Your task to perform on an android device: Go to network settings Image 0: 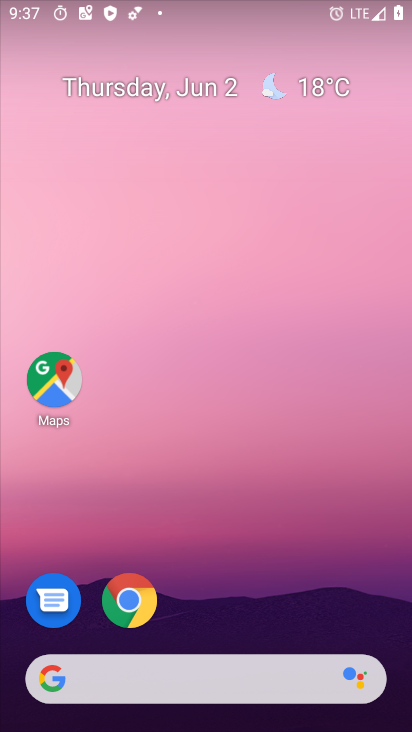
Step 0: drag from (320, 598) to (312, 122)
Your task to perform on an android device: Go to network settings Image 1: 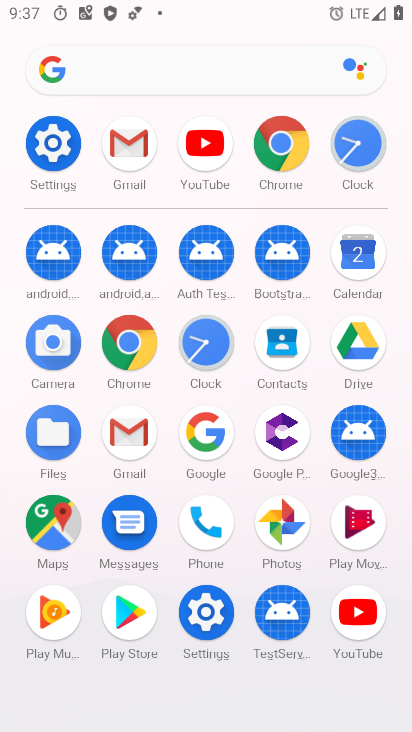
Step 1: click (213, 609)
Your task to perform on an android device: Go to network settings Image 2: 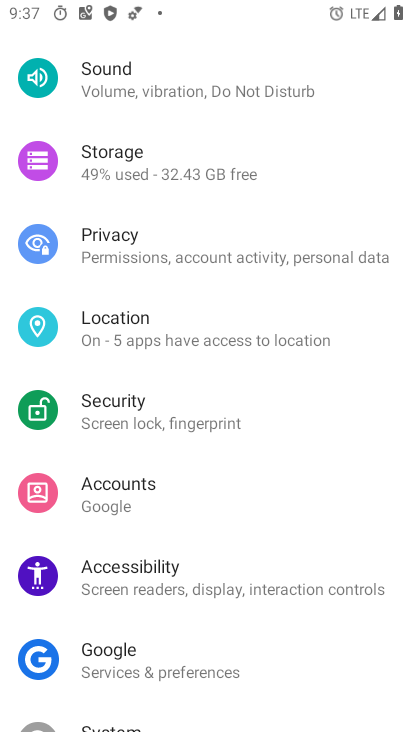
Step 2: drag from (318, 298) to (321, 402)
Your task to perform on an android device: Go to network settings Image 3: 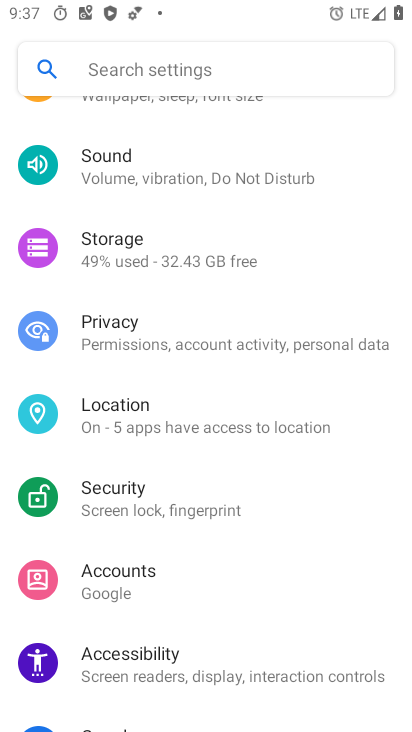
Step 3: drag from (315, 259) to (322, 342)
Your task to perform on an android device: Go to network settings Image 4: 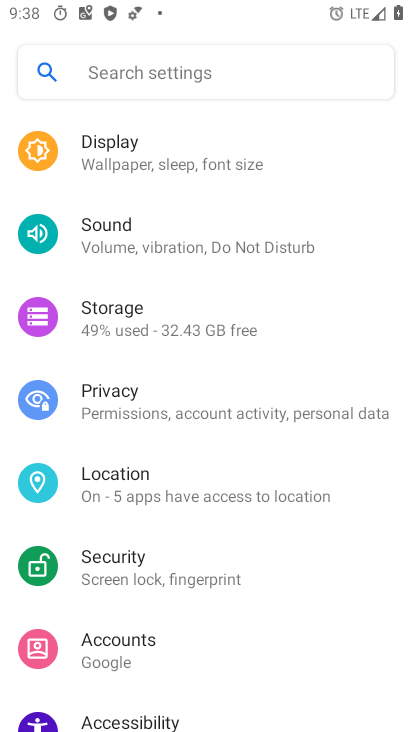
Step 4: drag from (353, 272) to (349, 368)
Your task to perform on an android device: Go to network settings Image 5: 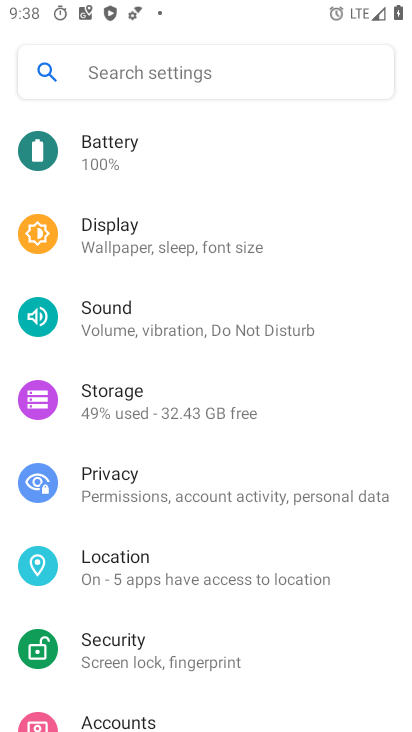
Step 5: drag from (364, 285) to (365, 381)
Your task to perform on an android device: Go to network settings Image 6: 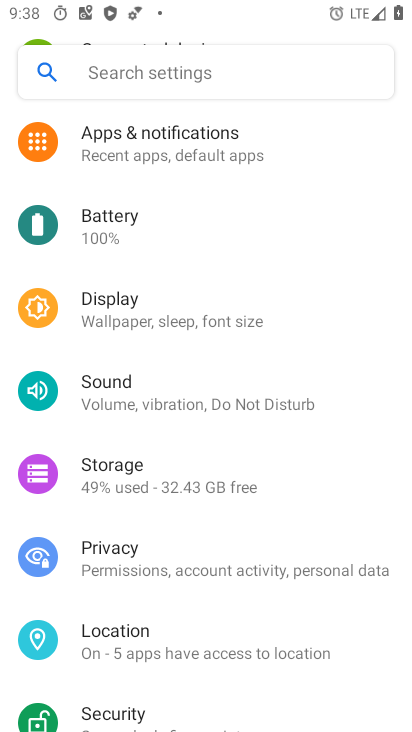
Step 6: drag from (338, 232) to (360, 375)
Your task to perform on an android device: Go to network settings Image 7: 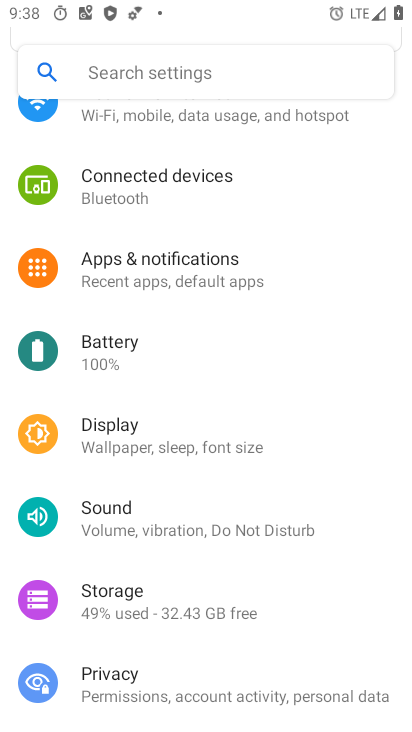
Step 7: drag from (347, 248) to (329, 376)
Your task to perform on an android device: Go to network settings Image 8: 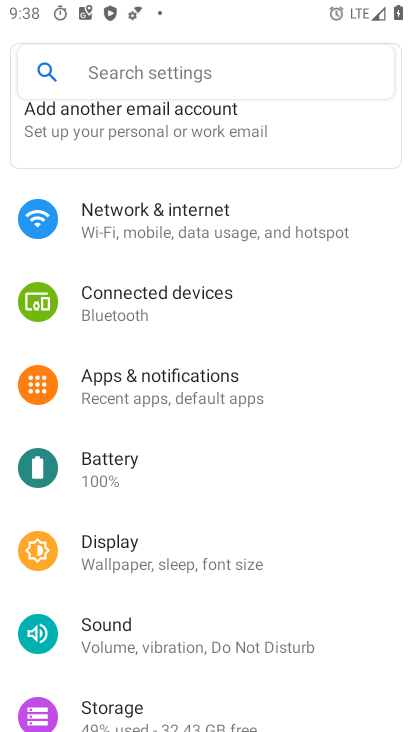
Step 8: drag from (337, 205) to (338, 373)
Your task to perform on an android device: Go to network settings Image 9: 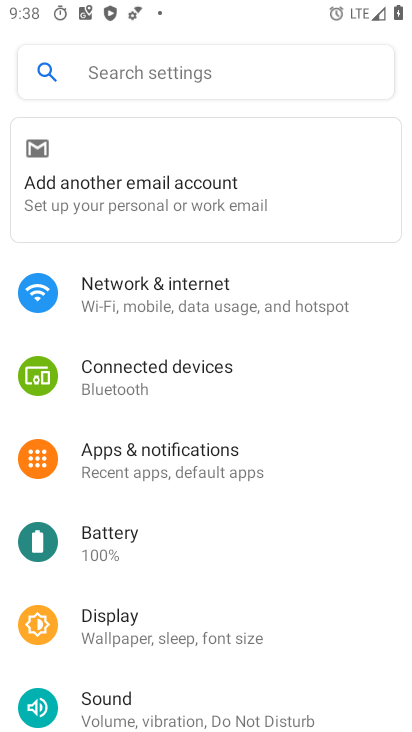
Step 9: click (239, 310)
Your task to perform on an android device: Go to network settings Image 10: 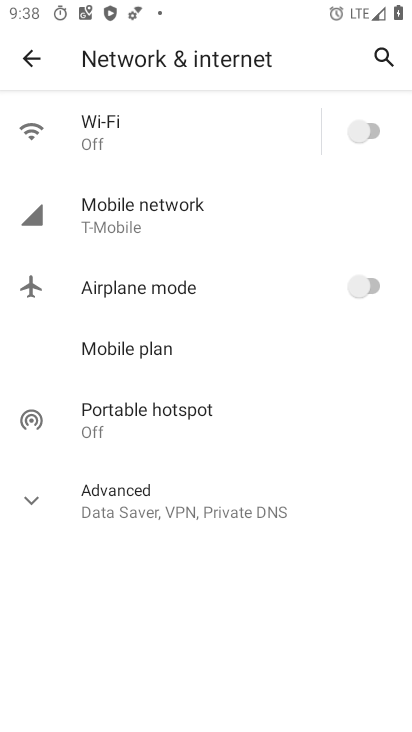
Step 10: task complete